Your task to perform on an android device: toggle notification dots Image 0: 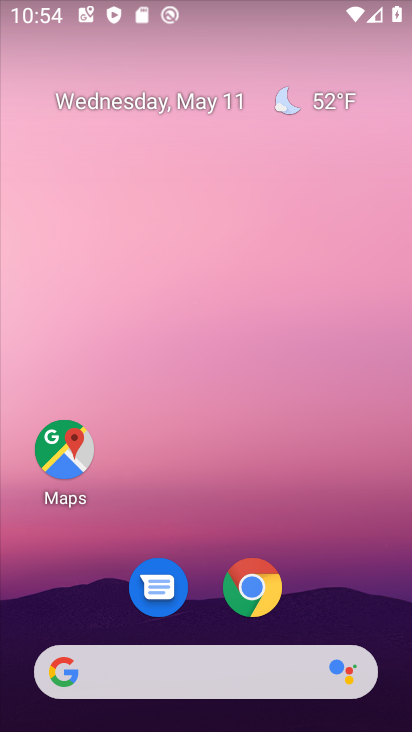
Step 0: drag from (230, 694) to (314, 160)
Your task to perform on an android device: toggle notification dots Image 1: 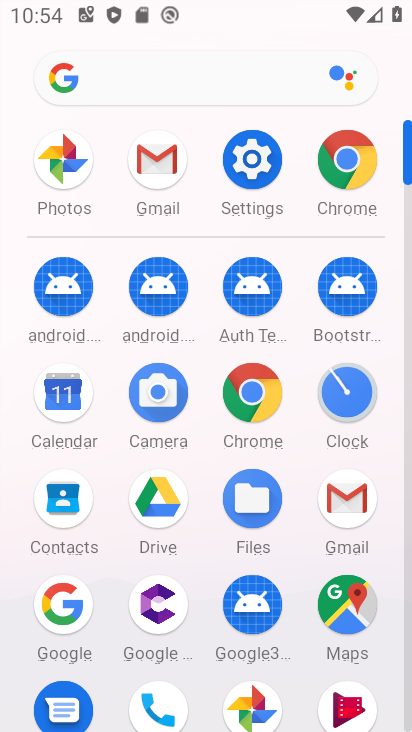
Step 1: click (235, 159)
Your task to perform on an android device: toggle notification dots Image 2: 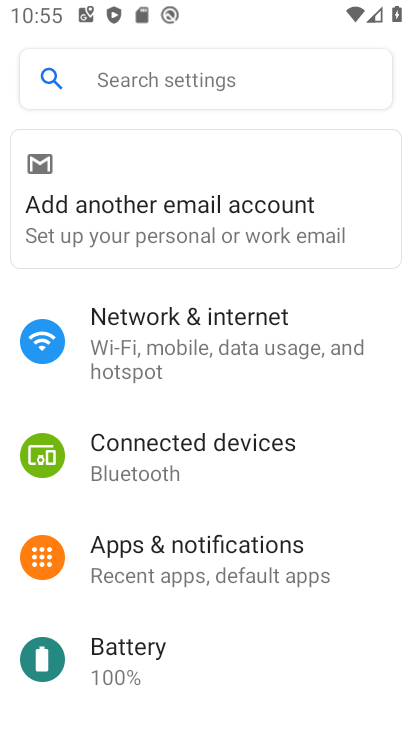
Step 2: click (176, 94)
Your task to perform on an android device: toggle notification dots Image 3: 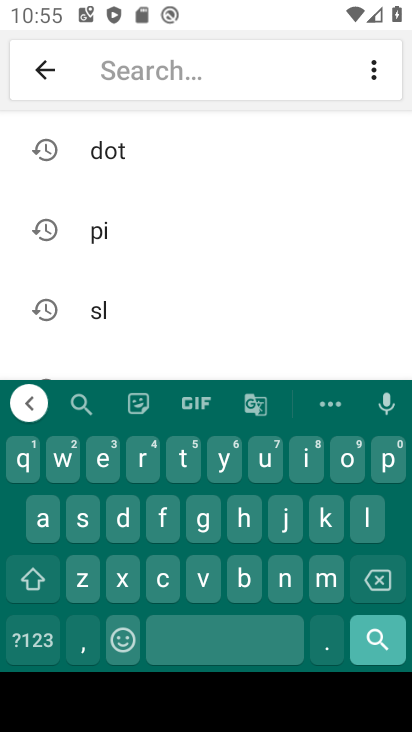
Step 3: click (154, 137)
Your task to perform on an android device: toggle notification dots Image 4: 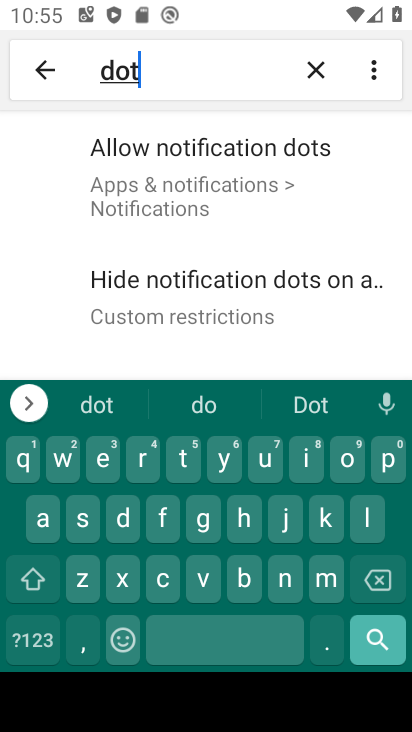
Step 4: click (153, 154)
Your task to perform on an android device: toggle notification dots Image 5: 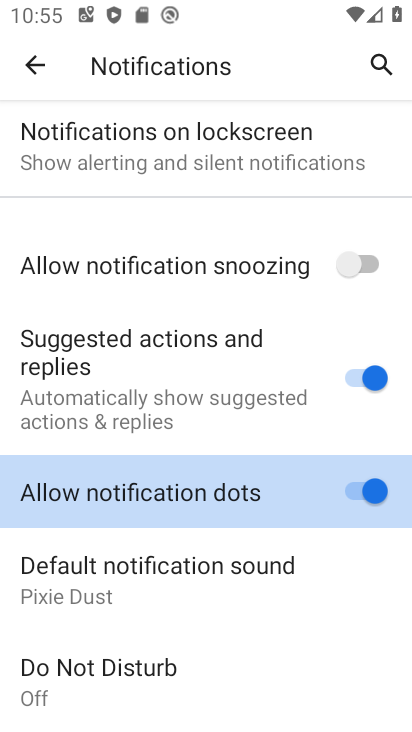
Step 5: task complete